Your task to perform on an android device: Go to accessibility settings Image 0: 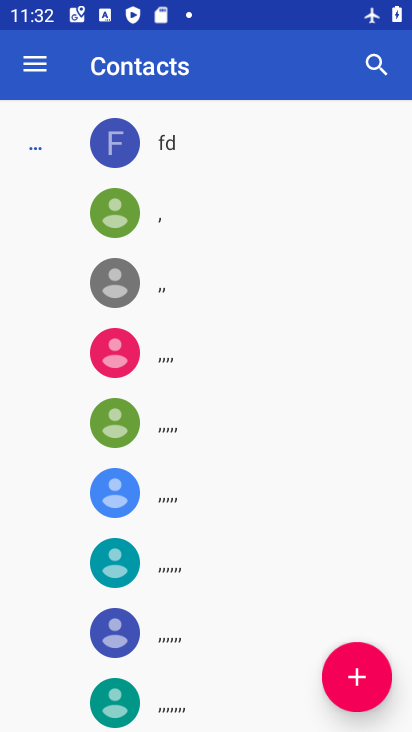
Step 0: press home button
Your task to perform on an android device: Go to accessibility settings Image 1: 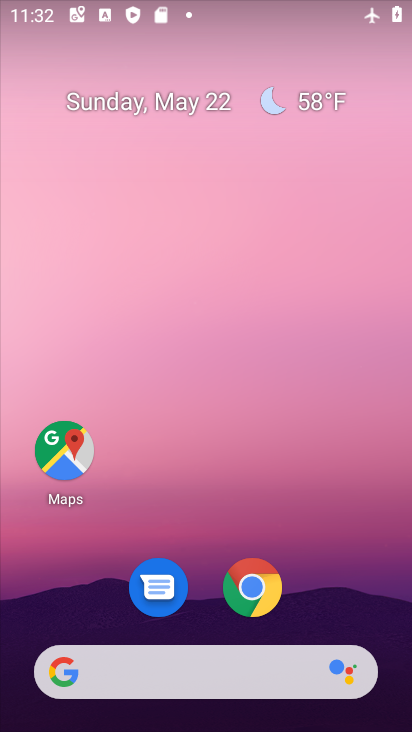
Step 1: drag from (181, 491) to (176, 89)
Your task to perform on an android device: Go to accessibility settings Image 2: 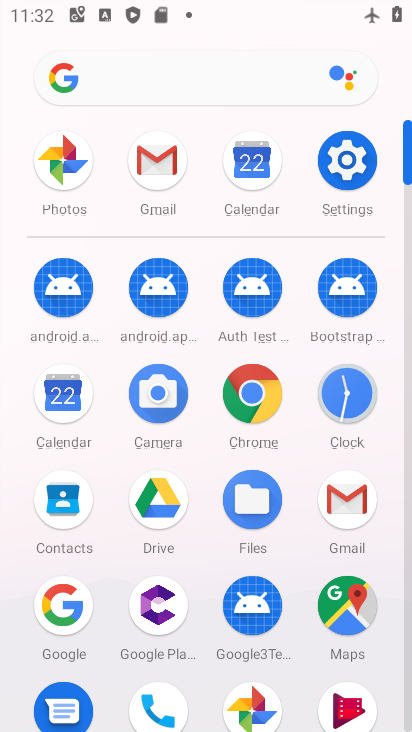
Step 2: click (335, 161)
Your task to perform on an android device: Go to accessibility settings Image 3: 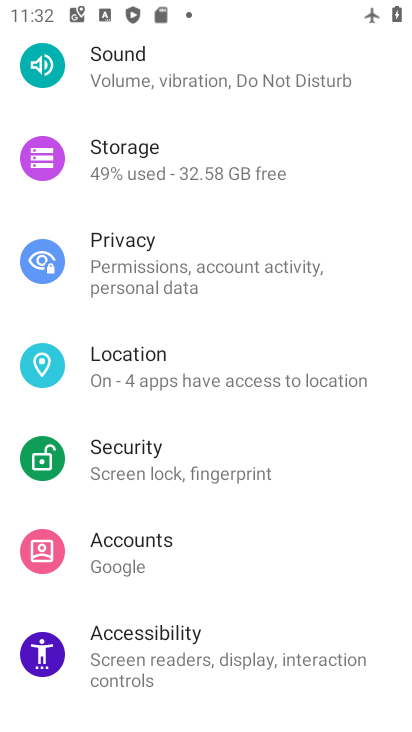
Step 3: click (200, 643)
Your task to perform on an android device: Go to accessibility settings Image 4: 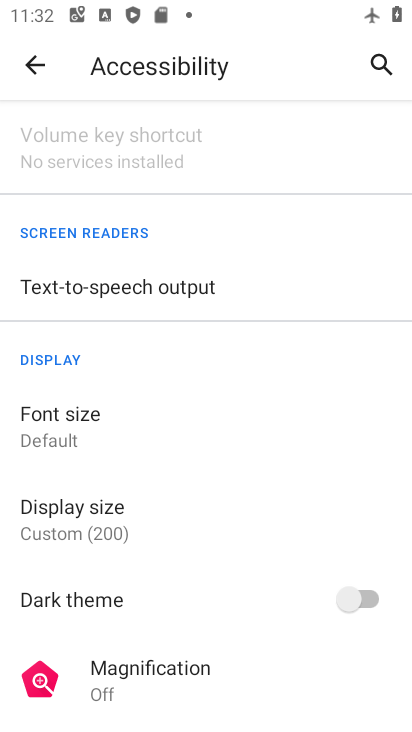
Step 4: task complete